Your task to perform on an android device: What's the weather going to be tomorrow? Image 0: 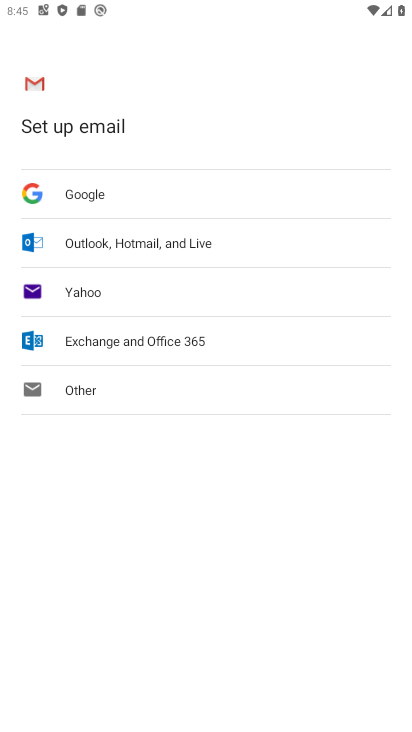
Step 0: press home button
Your task to perform on an android device: What's the weather going to be tomorrow? Image 1: 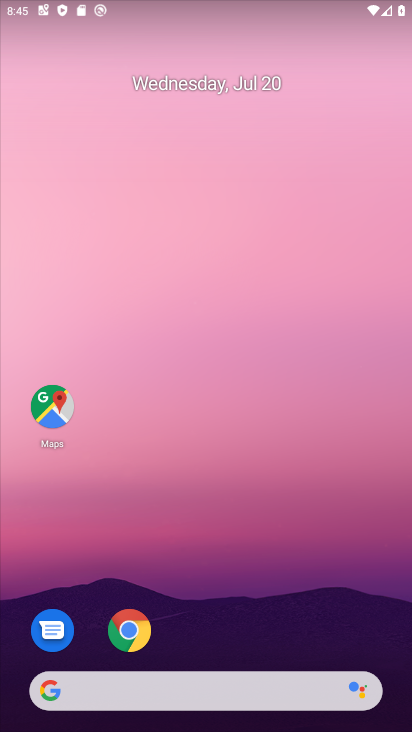
Step 1: drag from (11, 181) to (380, 144)
Your task to perform on an android device: What's the weather going to be tomorrow? Image 2: 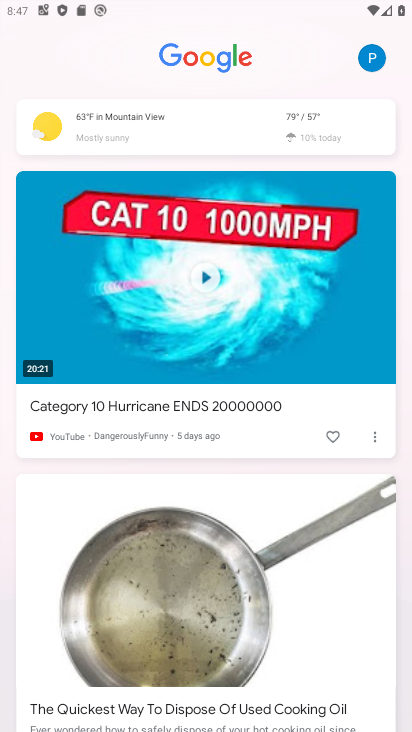
Step 2: click (296, 118)
Your task to perform on an android device: What's the weather going to be tomorrow? Image 3: 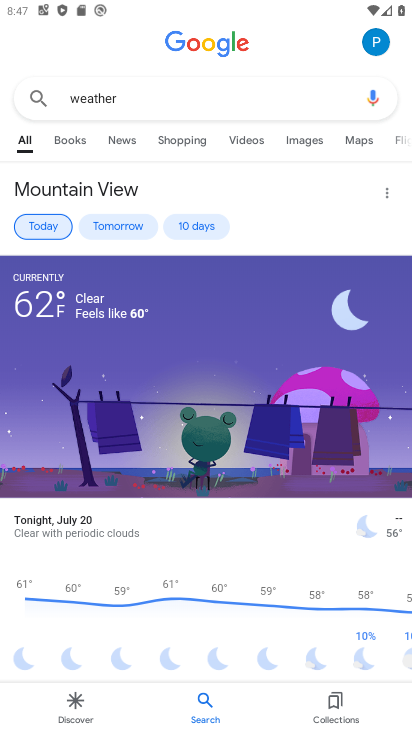
Step 3: click (109, 224)
Your task to perform on an android device: What's the weather going to be tomorrow? Image 4: 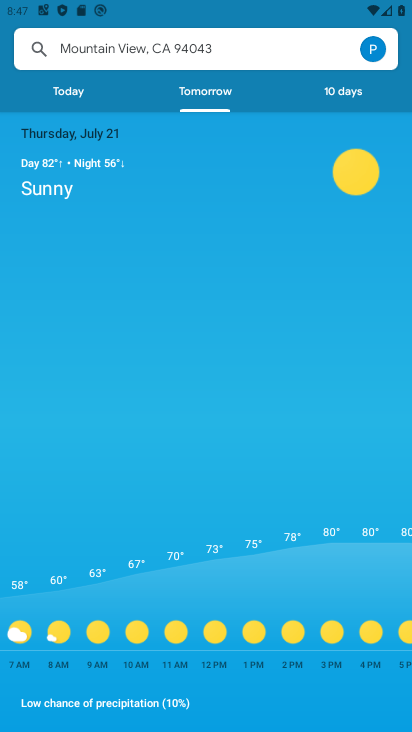
Step 4: task complete